Your task to perform on an android device: open app "ColorNote Notepad Notes" (install if not already installed) Image 0: 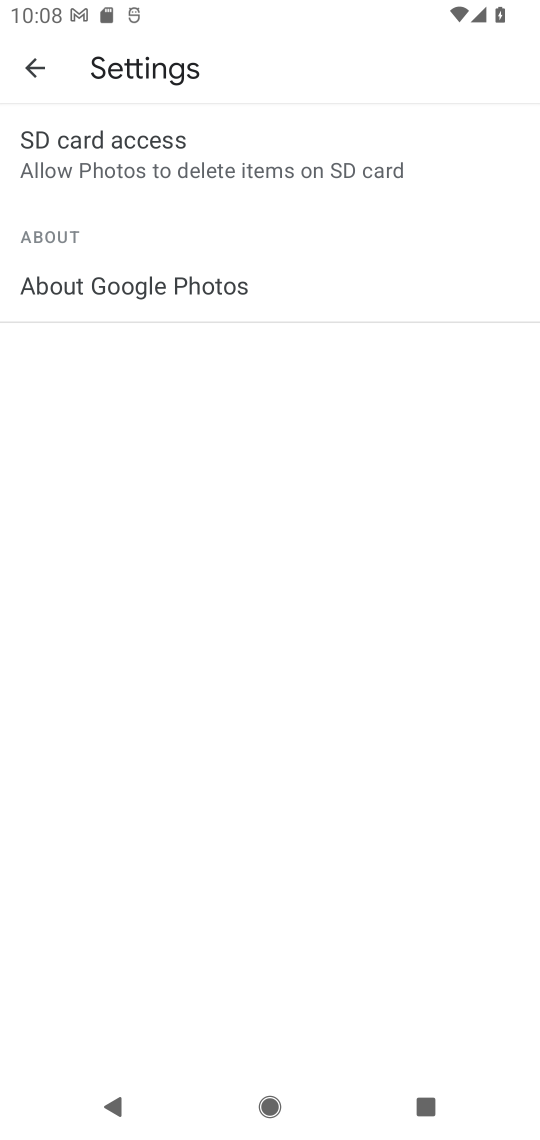
Step 0: press home button
Your task to perform on an android device: open app "ColorNote Notepad Notes" (install if not already installed) Image 1: 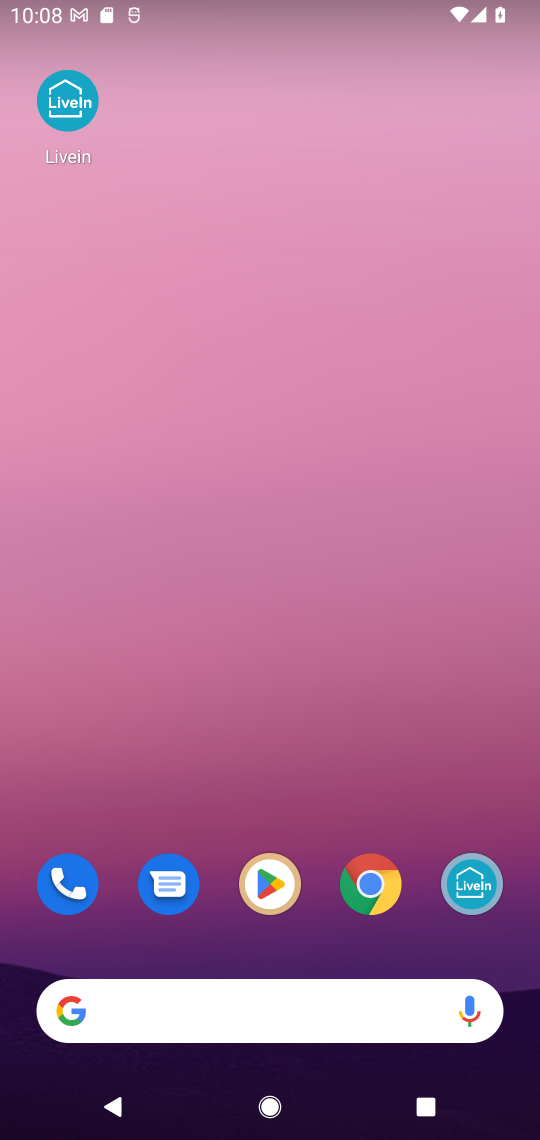
Step 1: click (277, 885)
Your task to perform on an android device: open app "ColorNote Notepad Notes" (install if not already installed) Image 2: 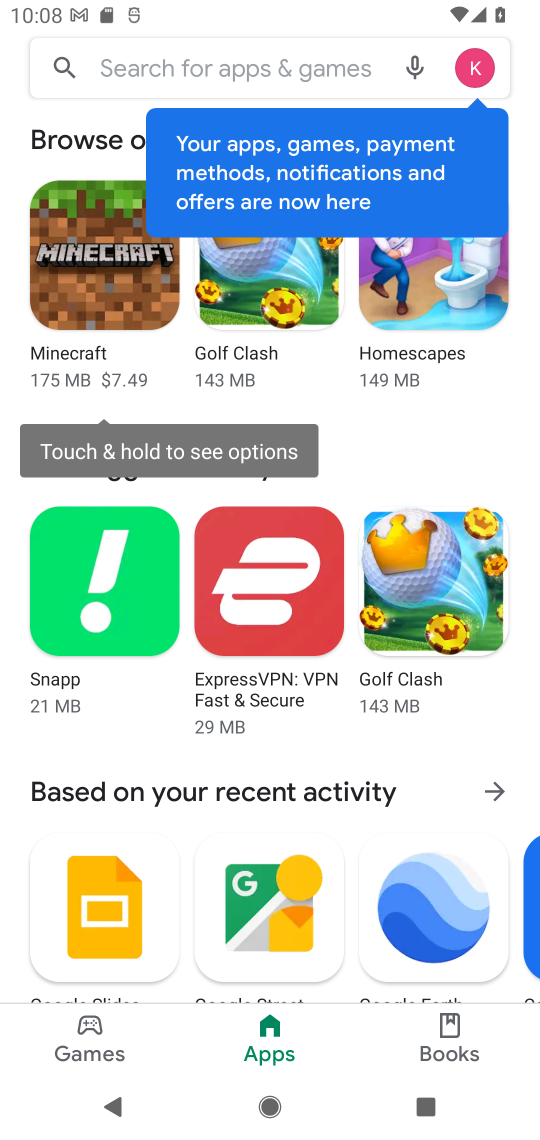
Step 2: click (304, 81)
Your task to perform on an android device: open app "ColorNote Notepad Notes" (install if not already installed) Image 3: 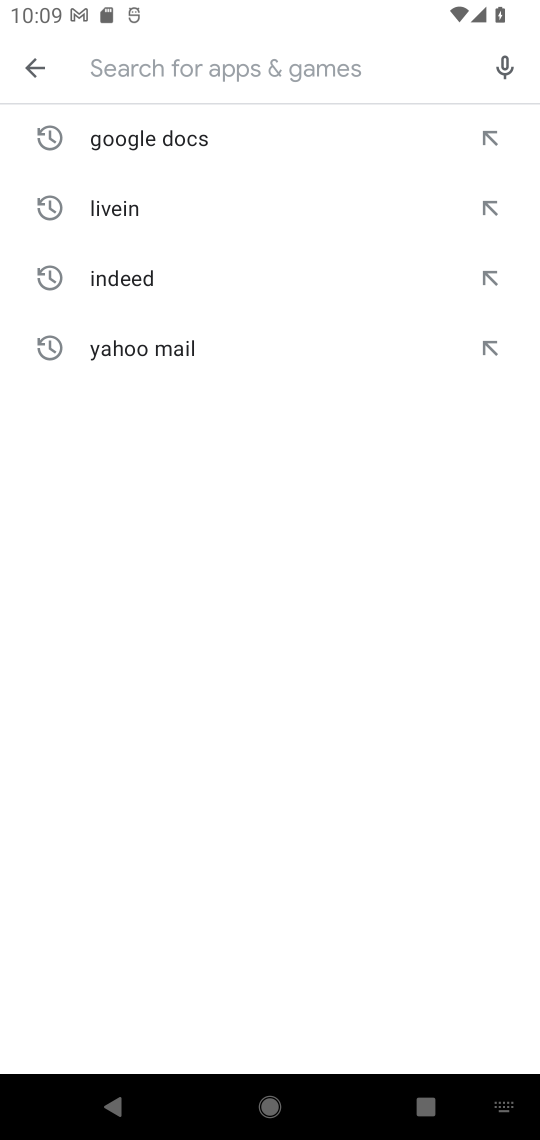
Step 3: type "color "
Your task to perform on an android device: open app "ColorNote Notepad Notes" (install if not already installed) Image 4: 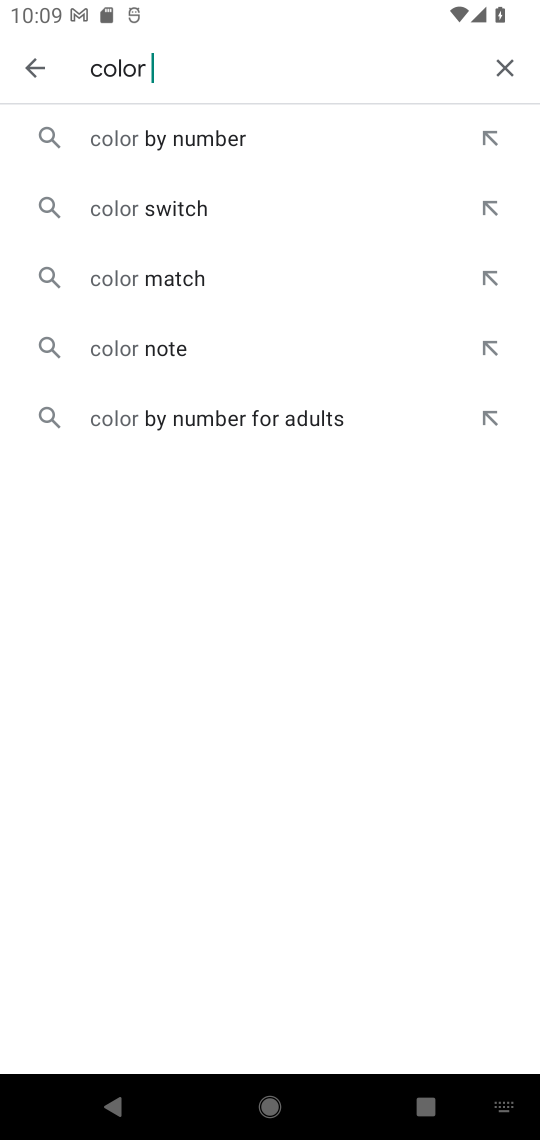
Step 4: click (229, 348)
Your task to perform on an android device: open app "ColorNote Notepad Notes" (install if not already installed) Image 5: 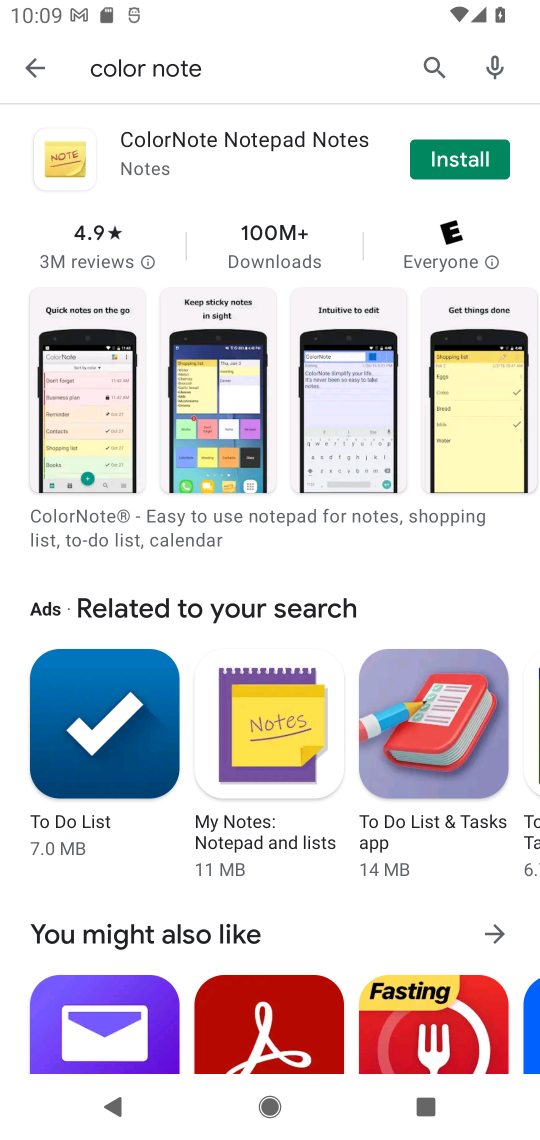
Step 5: click (430, 162)
Your task to perform on an android device: open app "ColorNote Notepad Notes" (install if not already installed) Image 6: 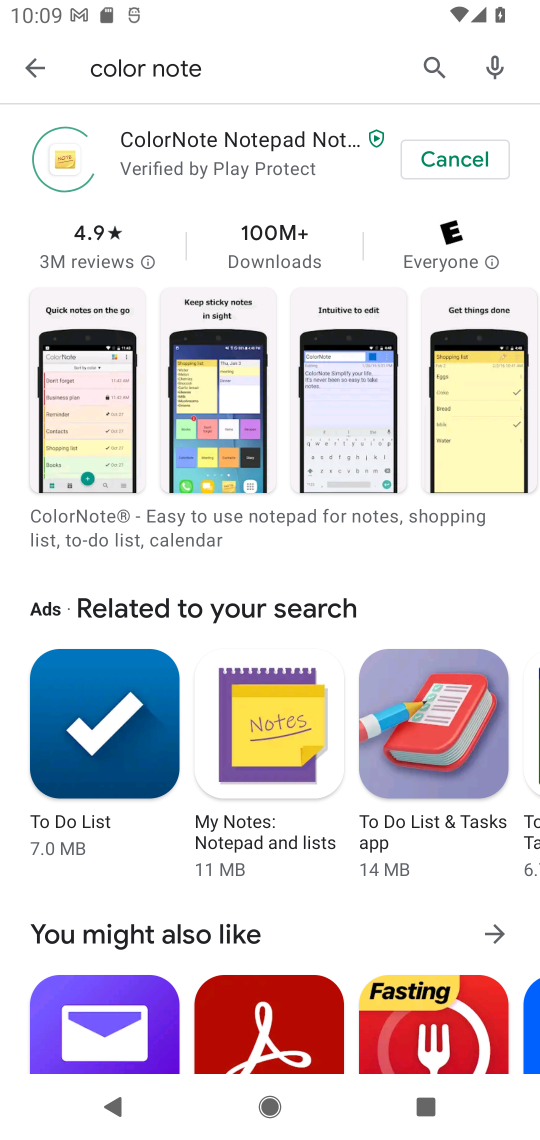
Step 6: task complete